Your task to perform on an android device: check data usage Image 0: 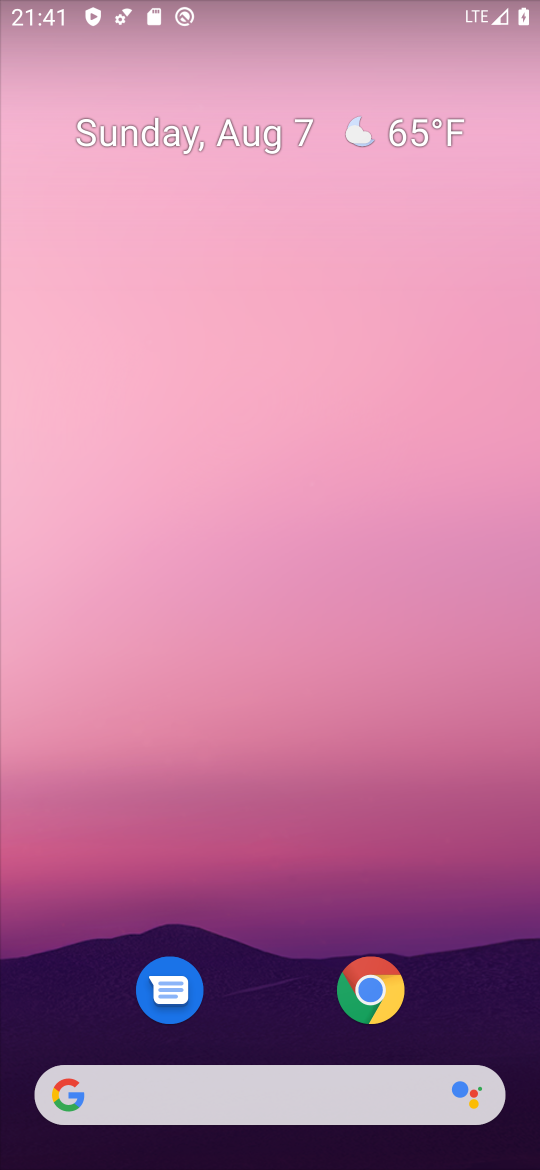
Step 0: drag from (291, 916) to (360, 0)
Your task to perform on an android device: check data usage Image 1: 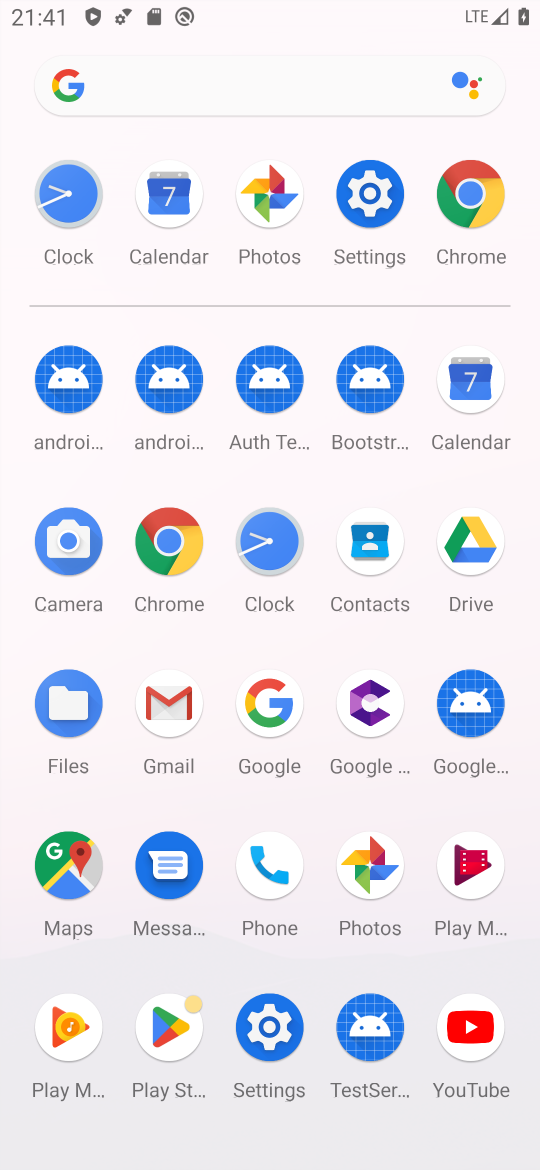
Step 1: click (372, 190)
Your task to perform on an android device: check data usage Image 2: 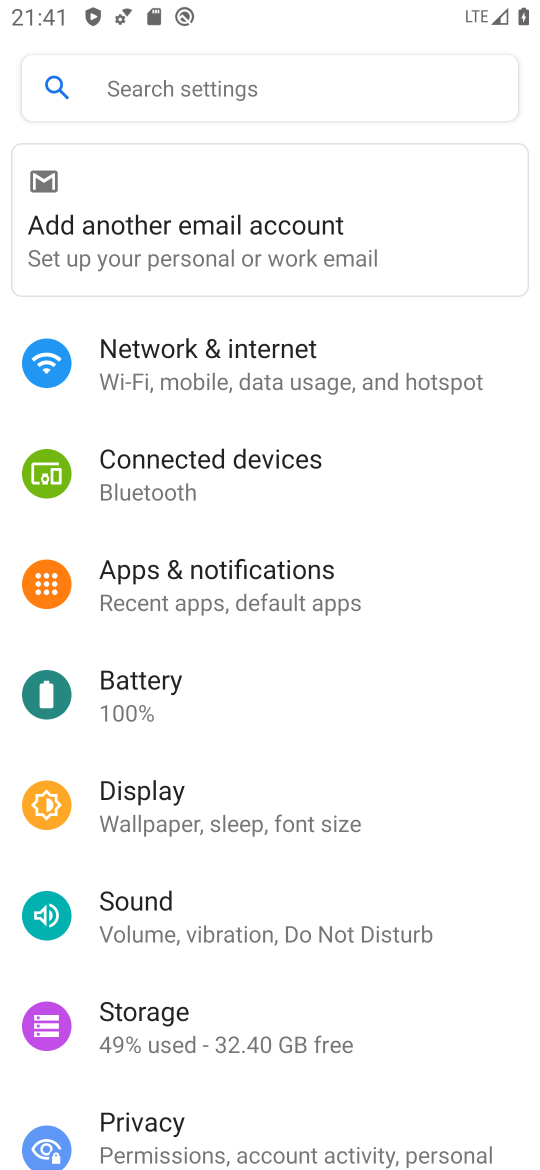
Step 2: click (362, 379)
Your task to perform on an android device: check data usage Image 3: 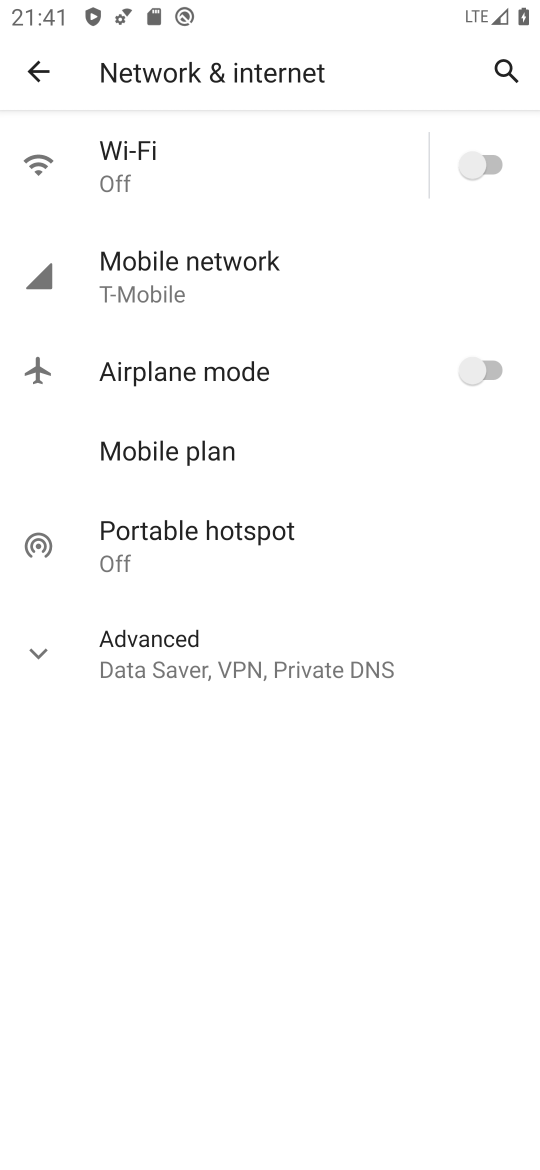
Step 3: click (228, 265)
Your task to perform on an android device: check data usage Image 4: 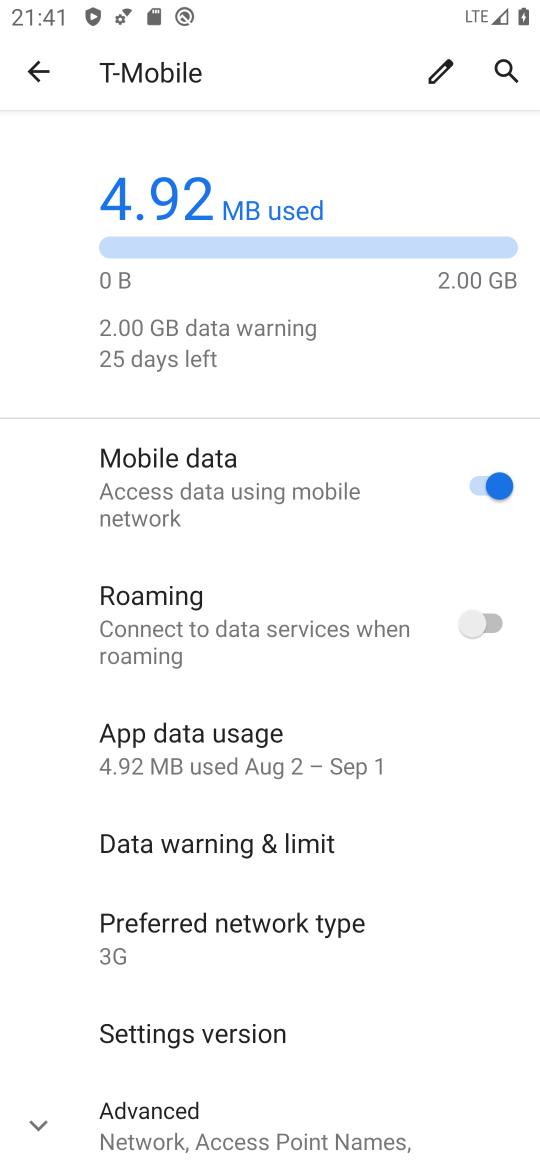
Step 4: task complete